Your task to perform on an android device: Open Android settings Image 0: 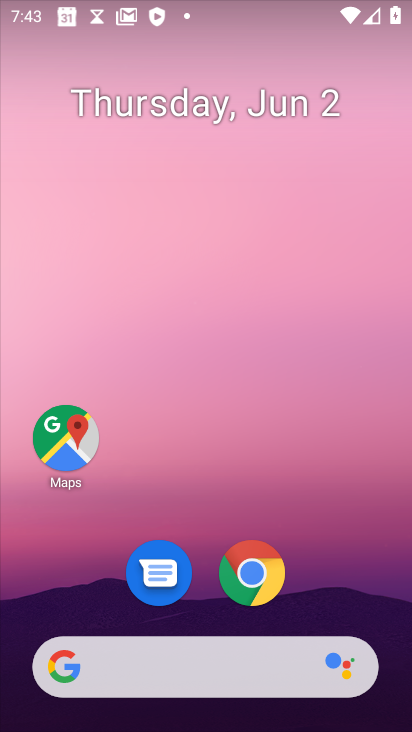
Step 0: drag from (169, 634) to (300, 95)
Your task to perform on an android device: Open Android settings Image 1: 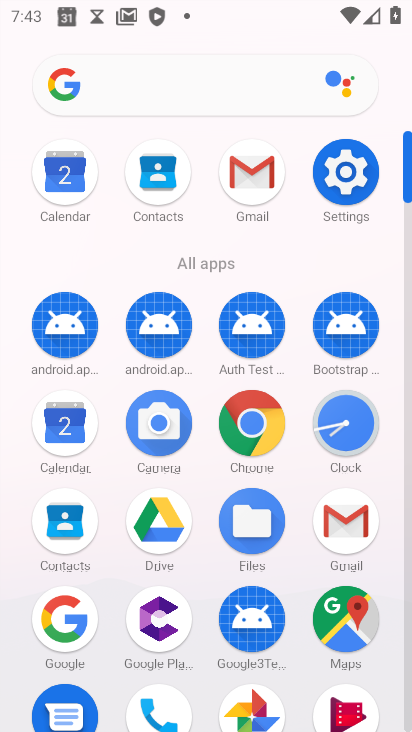
Step 1: click (343, 178)
Your task to perform on an android device: Open Android settings Image 2: 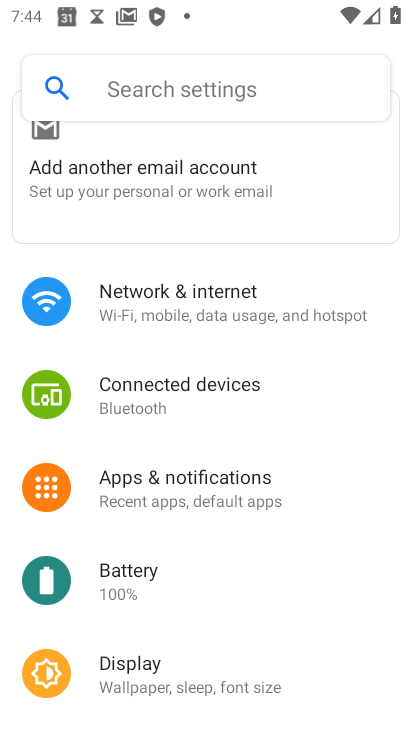
Step 2: task complete